Your task to perform on an android device: What is the news today? Image 0: 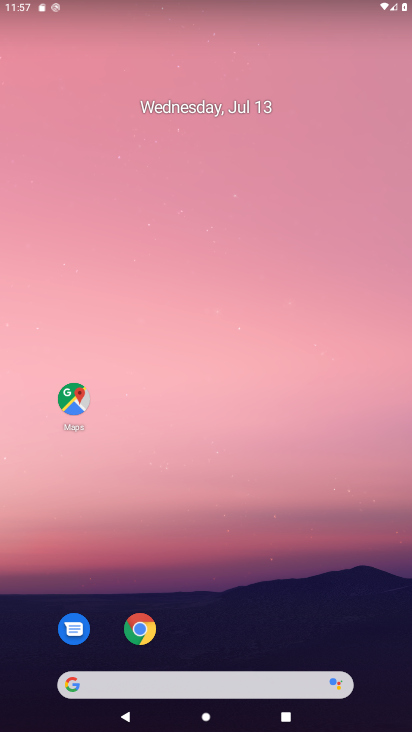
Step 0: drag from (246, 576) to (195, 58)
Your task to perform on an android device: What is the news today? Image 1: 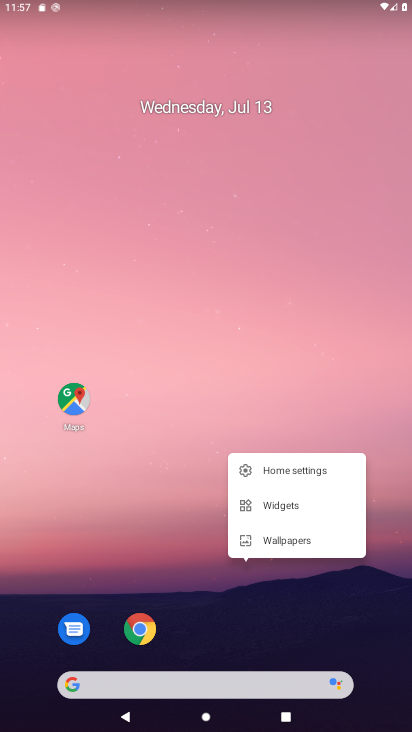
Step 1: click (181, 677)
Your task to perform on an android device: What is the news today? Image 2: 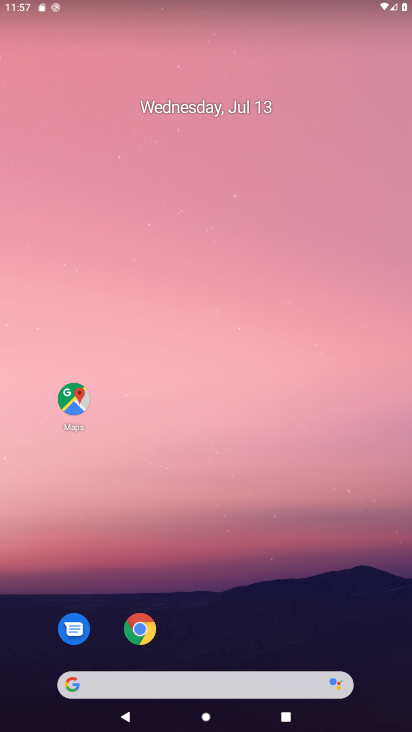
Step 2: click (181, 677)
Your task to perform on an android device: What is the news today? Image 3: 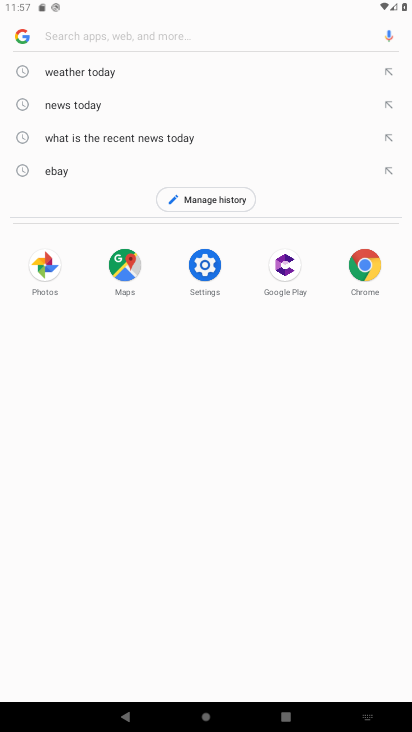
Step 3: click (131, 104)
Your task to perform on an android device: What is the news today? Image 4: 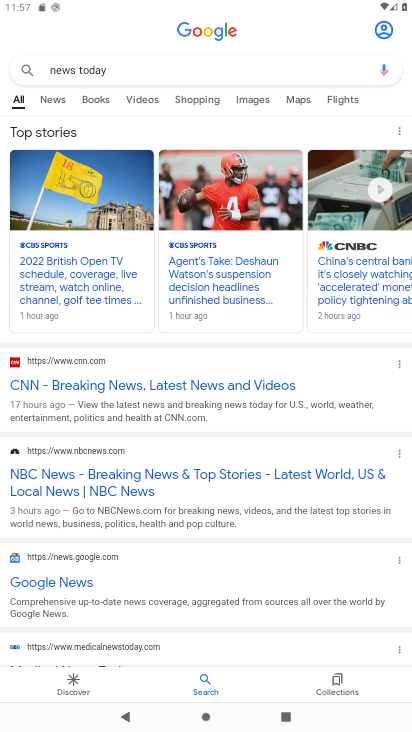
Step 4: task complete